Your task to perform on an android device: find which apps use the phone's location Image 0: 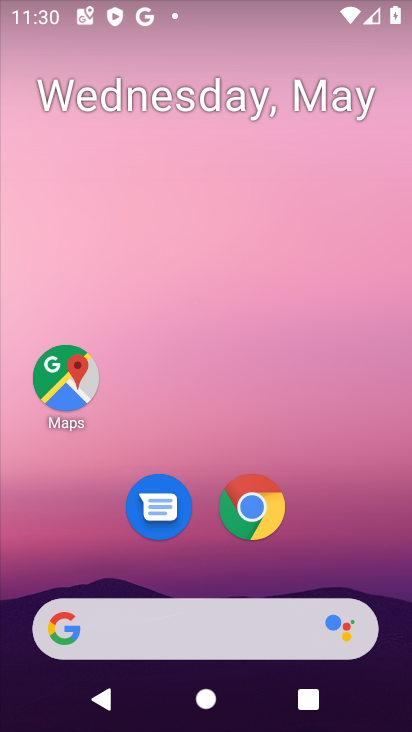
Step 0: press home button
Your task to perform on an android device: find which apps use the phone's location Image 1: 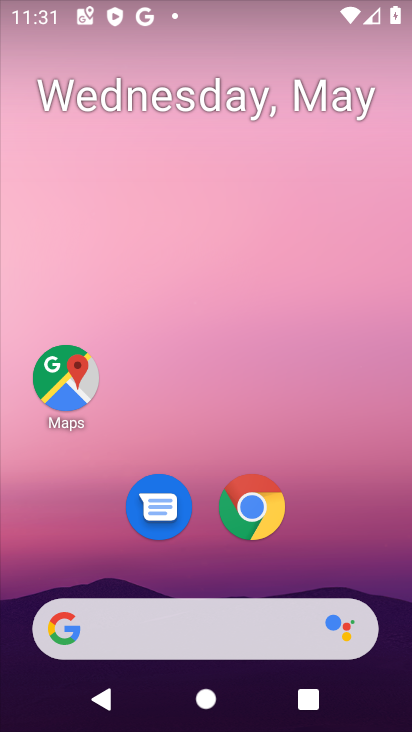
Step 1: drag from (350, 514) to (235, 209)
Your task to perform on an android device: find which apps use the phone's location Image 2: 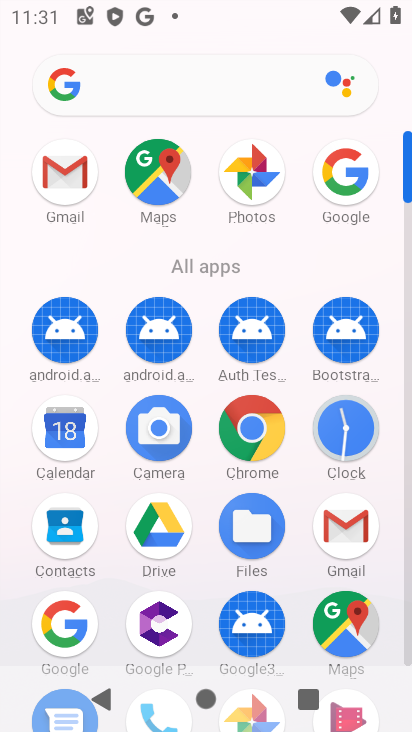
Step 2: drag from (326, 558) to (343, 216)
Your task to perform on an android device: find which apps use the phone's location Image 3: 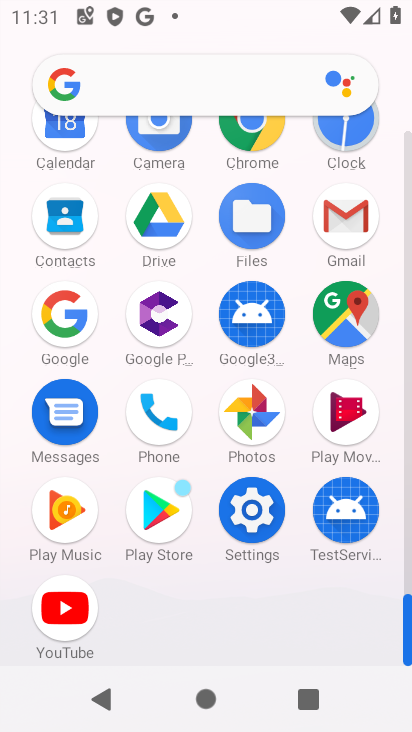
Step 3: click (159, 415)
Your task to perform on an android device: find which apps use the phone's location Image 4: 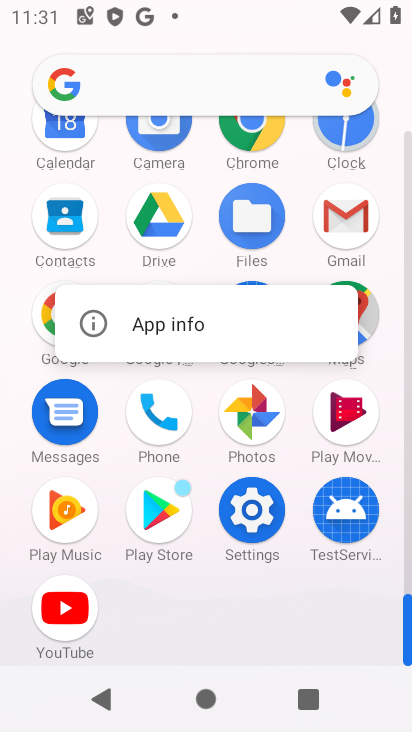
Step 4: click (144, 317)
Your task to perform on an android device: find which apps use the phone's location Image 5: 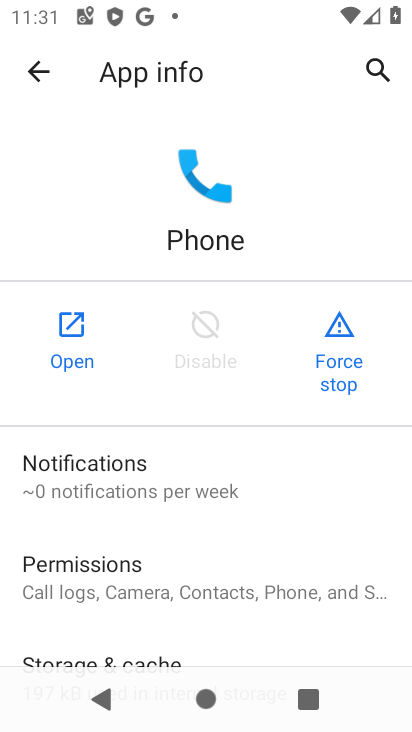
Step 5: click (75, 566)
Your task to perform on an android device: find which apps use the phone's location Image 6: 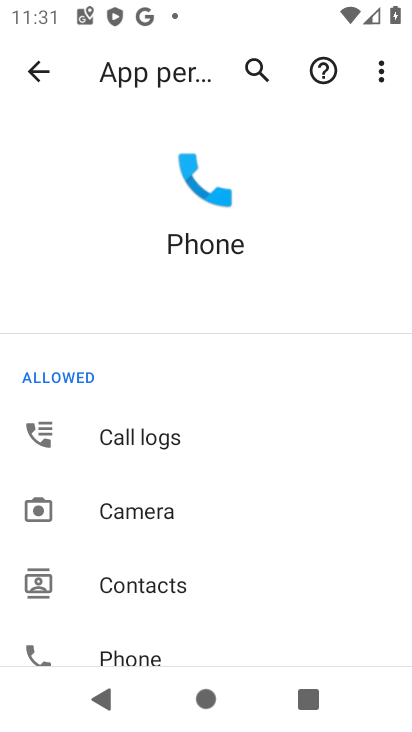
Step 6: drag from (75, 566) to (75, 427)
Your task to perform on an android device: find which apps use the phone's location Image 7: 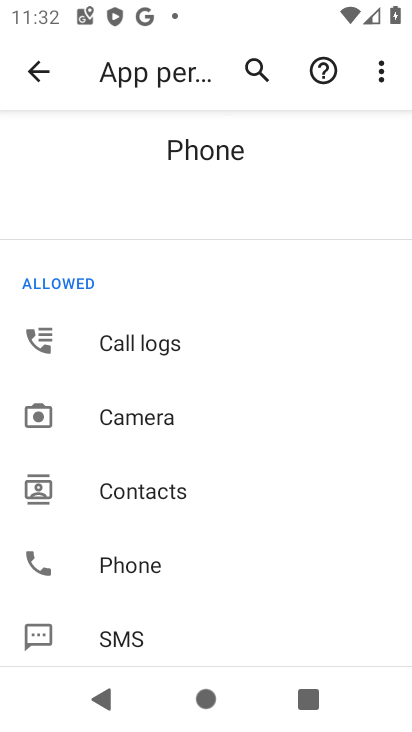
Step 7: drag from (91, 541) to (90, 145)
Your task to perform on an android device: find which apps use the phone's location Image 8: 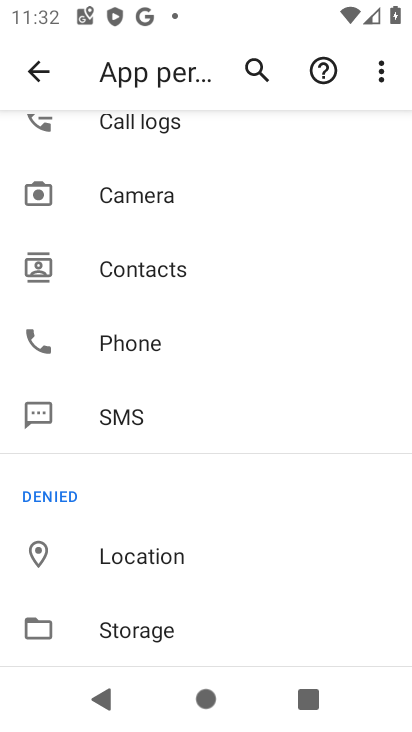
Step 8: click (162, 557)
Your task to perform on an android device: find which apps use the phone's location Image 9: 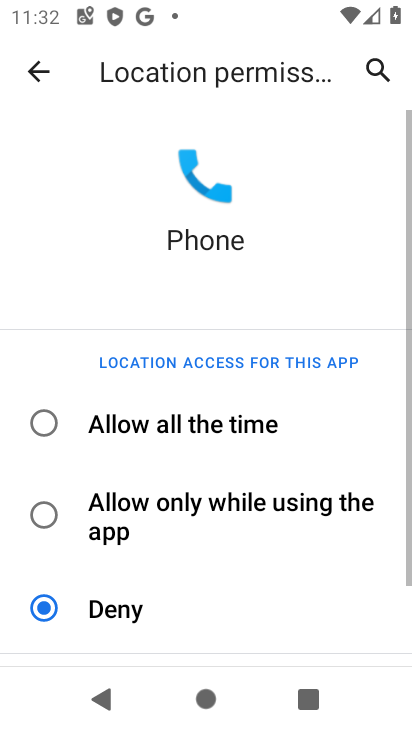
Step 9: drag from (156, 514) to (161, 240)
Your task to perform on an android device: find which apps use the phone's location Image 10: 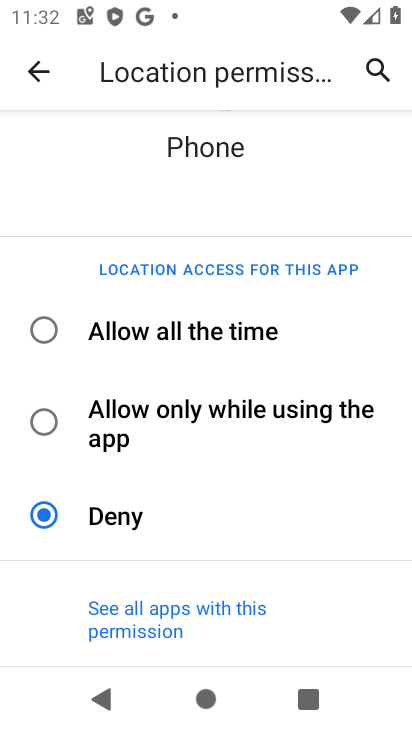
Step 10: click (184, 603)
Your task to perform on an android device: find which apps use the phone's location Image 11: 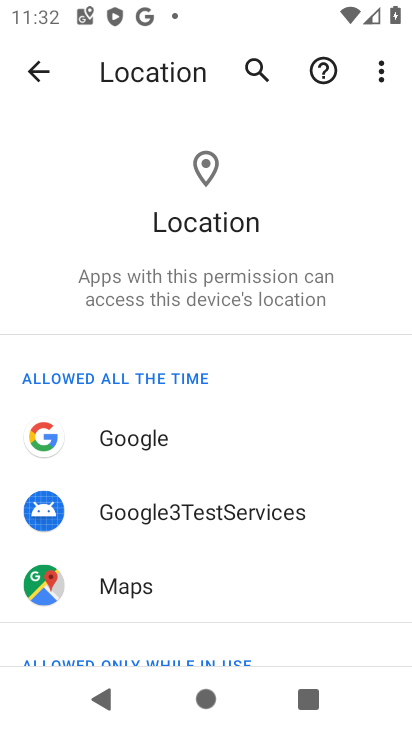
Step 11: task complete